Your task to perform on an android device: open chrome privacy settings Image 0: 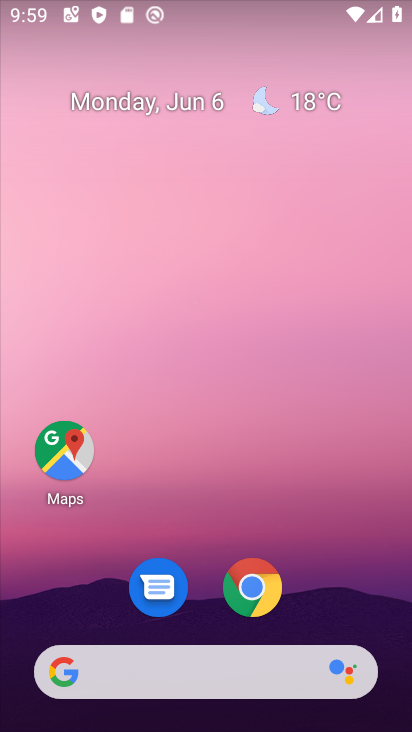
Step 0: click (255, 591)
Your task to perform on an android device: open chrome privacy settings Image 1: 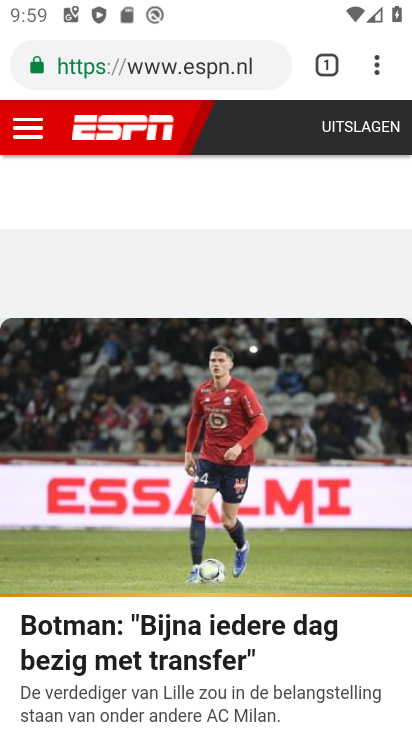
Step 1: click (371, 65)
Your task to perform on an android device: open chrome privacy settings Image 2: 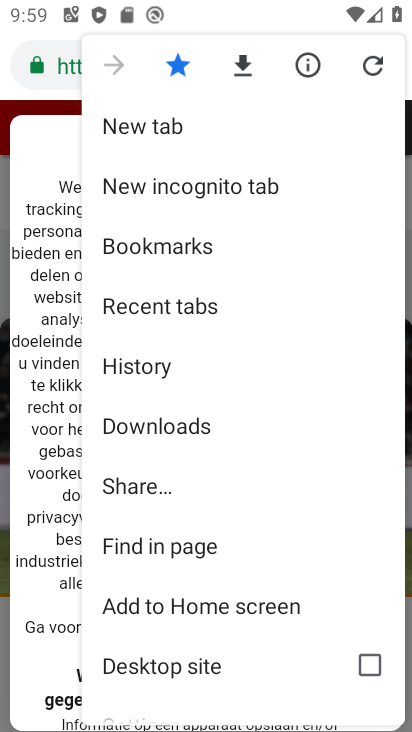
Step 2: drag from (290, 654) to (305, 130)
Your task to perform on an android device: open chrome privacy settings Image 3: 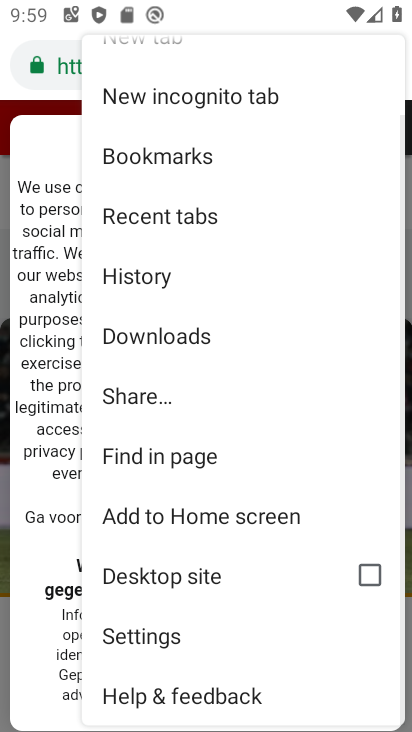
Step 3: click (225, 634)
Your task to perform on an android device: open chrome privacy settings Image 4: 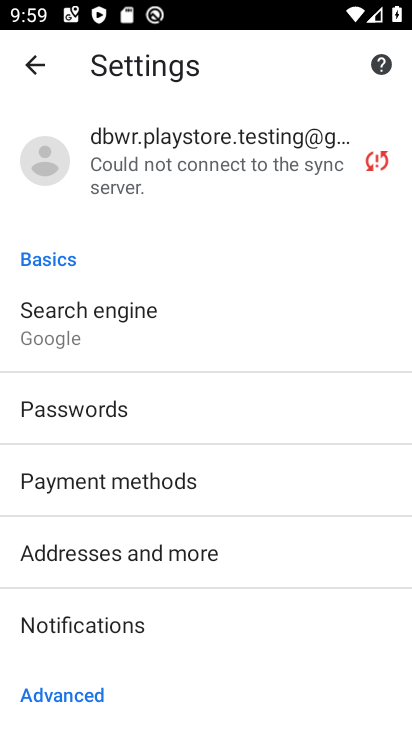
Step 4: drag from (220, 603) to (201, 237)
Your task to perform on an android device: open chrome privacy settings Image 5: 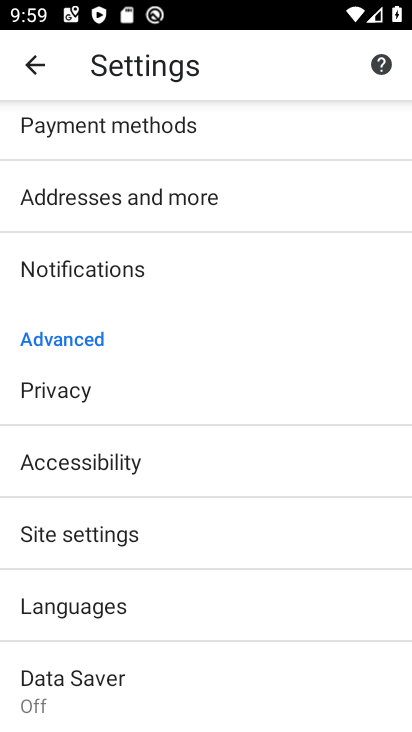
Step 5: click (181, 383)
Your task to perform on an android device: open chrome privacy settings Image 6: 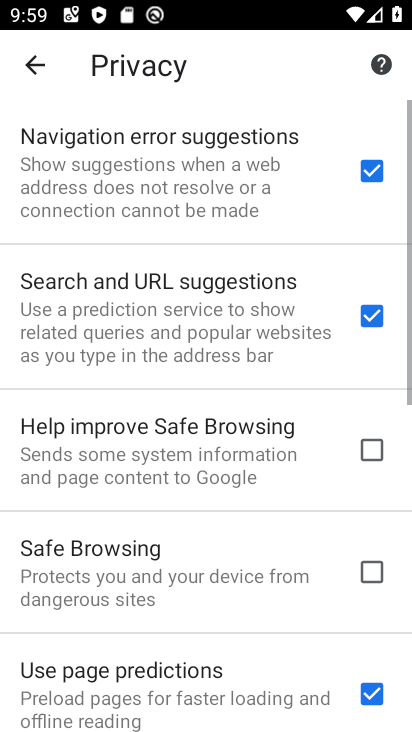
Step 6: task complete